Your task to perform on an android device: Go to eBay Image 0: 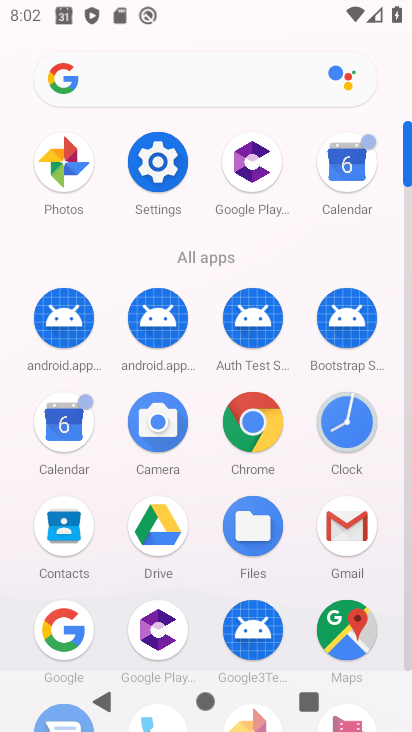
Step 0: press home button
Your task to perform on an android device: Go to eBay Image 1: 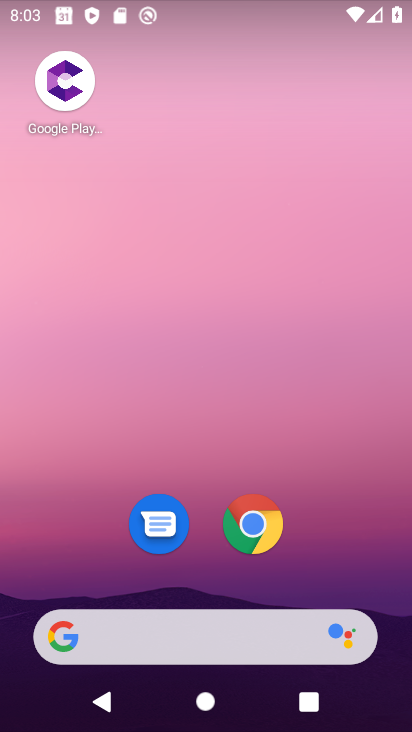
Step 1: click (225, 638)
Your task to perform on an android device: Go to eBay Image 2: 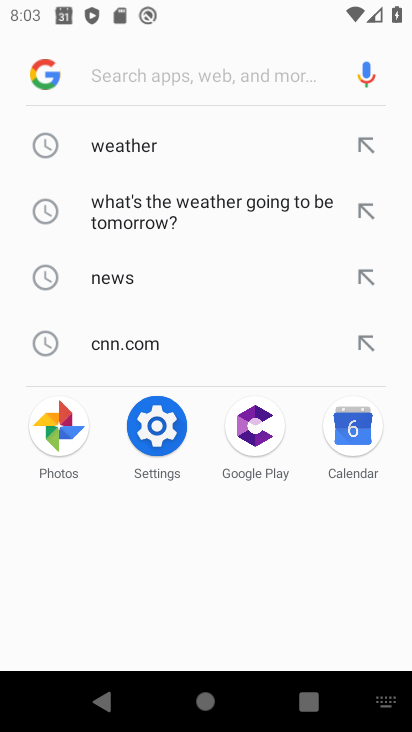
Step 2: type "ebay"
Your task to perform on an android device: Go to eBay Image 3: 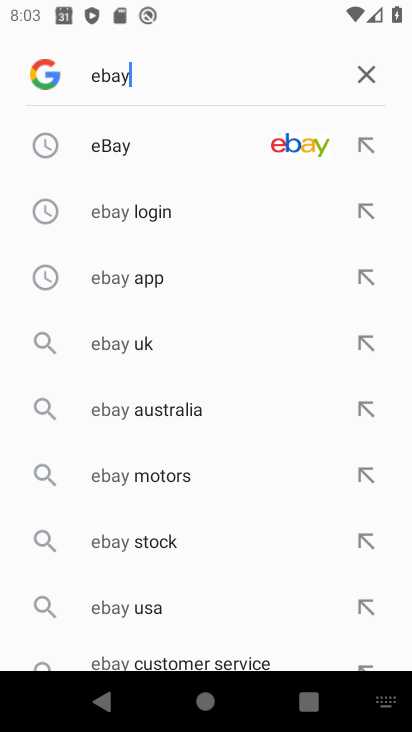
Step 3: click (122, 152)
Your task to perform on an android device: Go to eBay Image 4: 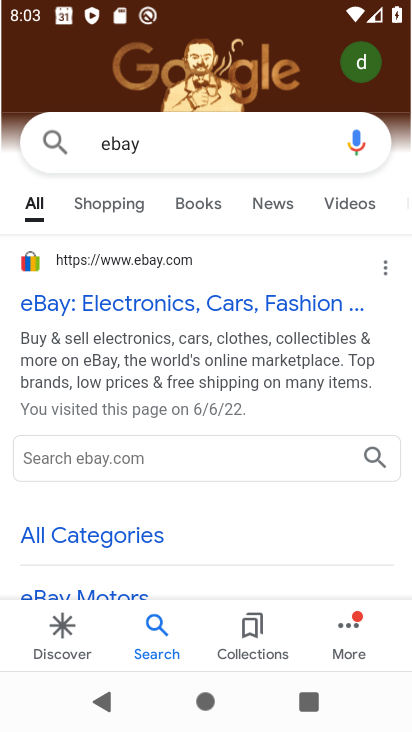
Step 4: click (59, 298)
Your task to perform on an android device: Go to eBay Image 5: 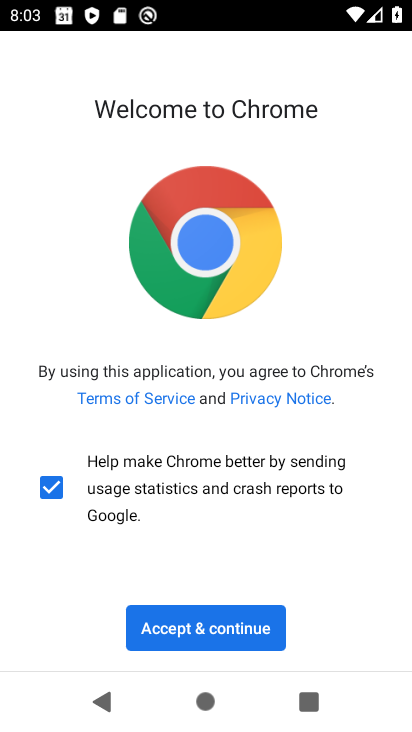
Step 5: click (194, 621)
Your task to perform on an android device: Go to eBay Image 6: 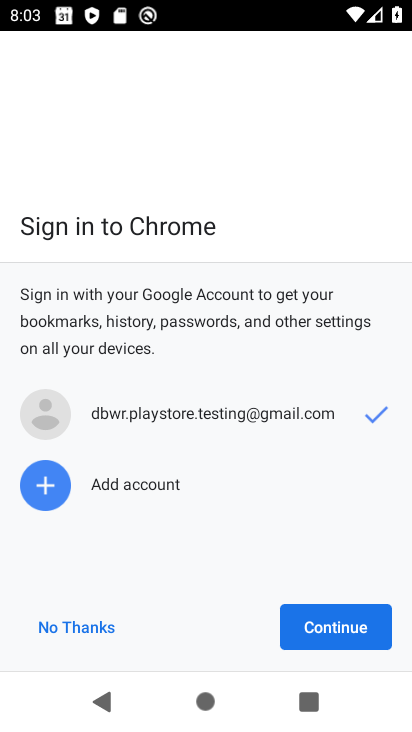
Step 6: click (349, 627)
Your task to perform on an android device: Go to eBay Image 7: 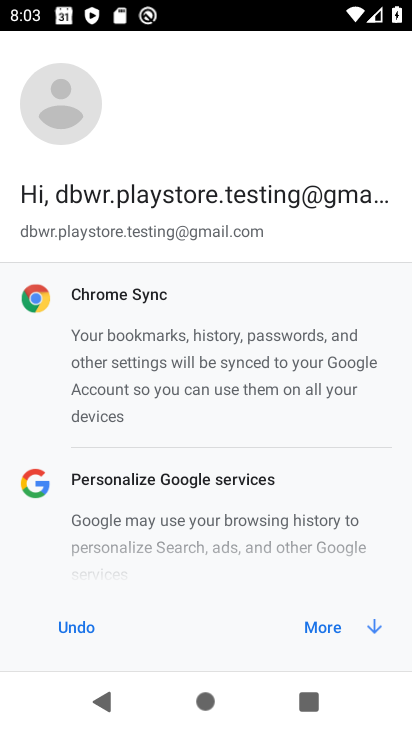
Step 7: click (332, 619)
Your task to perform on an android device: Go to eBay Image 8: 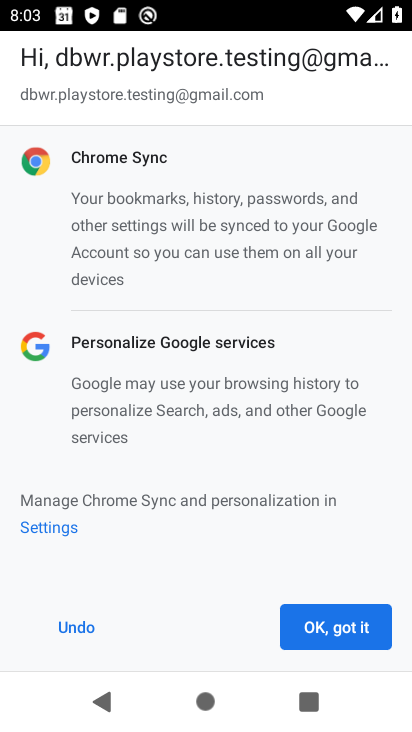
Step 8: click (332, 621)
Your task to perform on an android device: Go to eBay Image 9: 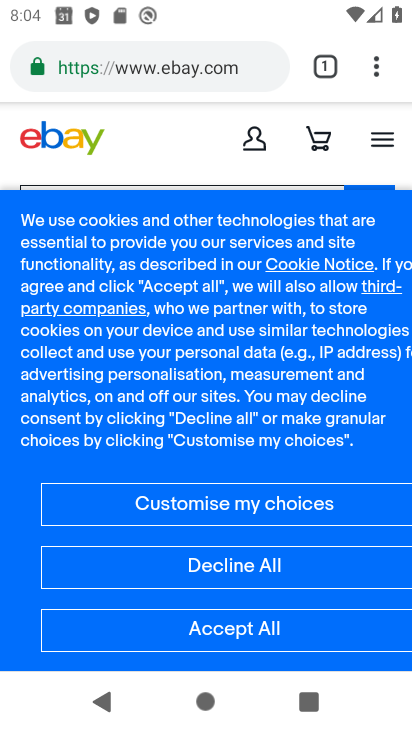
Step 9: task complete